Your task to perform on an android device: Open Youtube and go to the subscriptions tab Image 0: 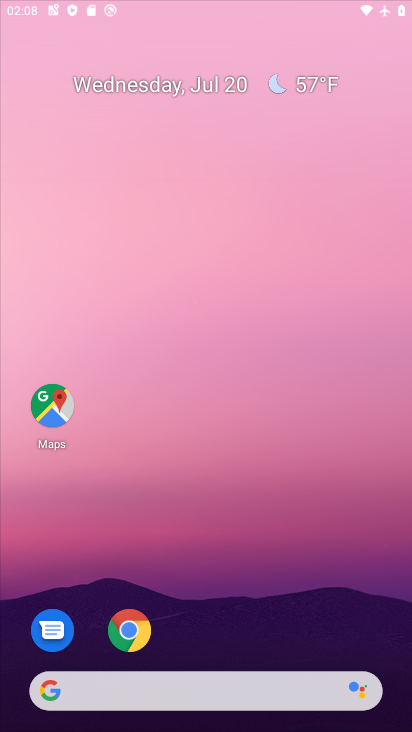
Step 0: drag from (370, 604) to (286, 171)
Your task to perform on an android device: Open Youtube and go to the subscriptions tab Image 1: 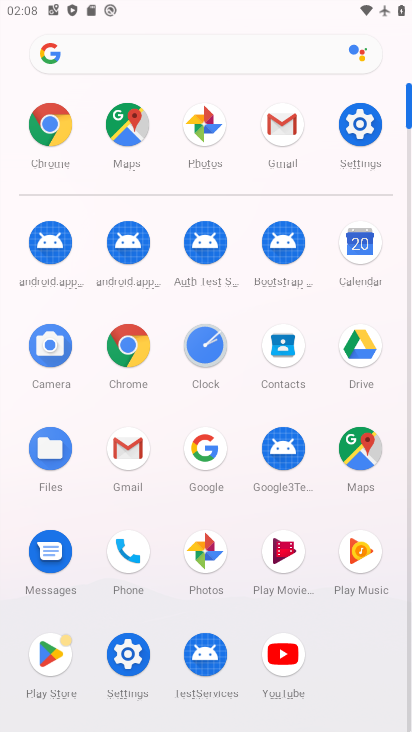
Step 1: click (279, 658)
Your task to perform on an android device: Open Youtube and go to the subscriptions tab Image 2: 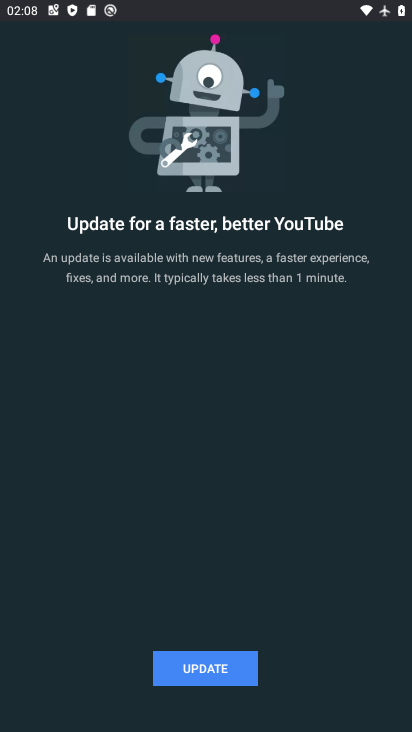
Step 2: click (231, 668)
Your task to perform on an android device: Open Youtube and go to the subscriptions tab Image 3: 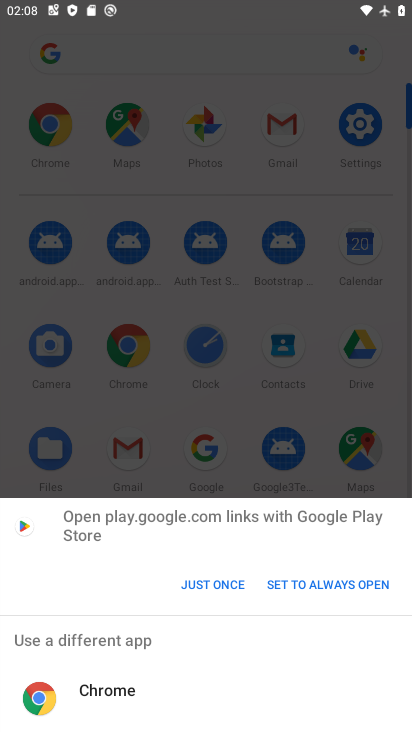
Step 3: click (131, 685)
Your task to perform on an android device: Open Youtube and go to the subscriptions tab Image 4: 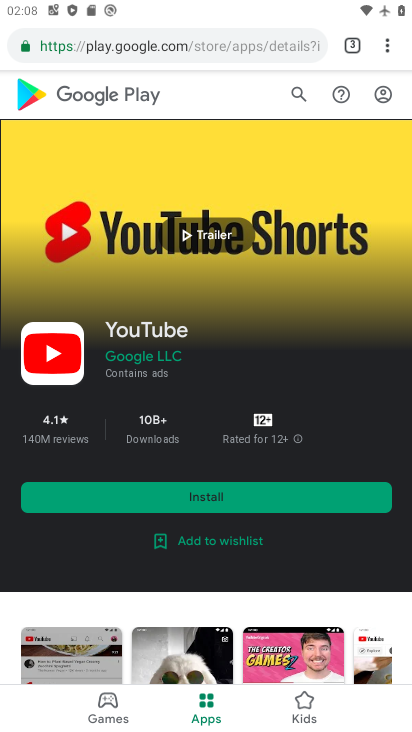
Step 4: task complete